Your task to perform on an android device: Clear the shopping cart on costco. Image 0: 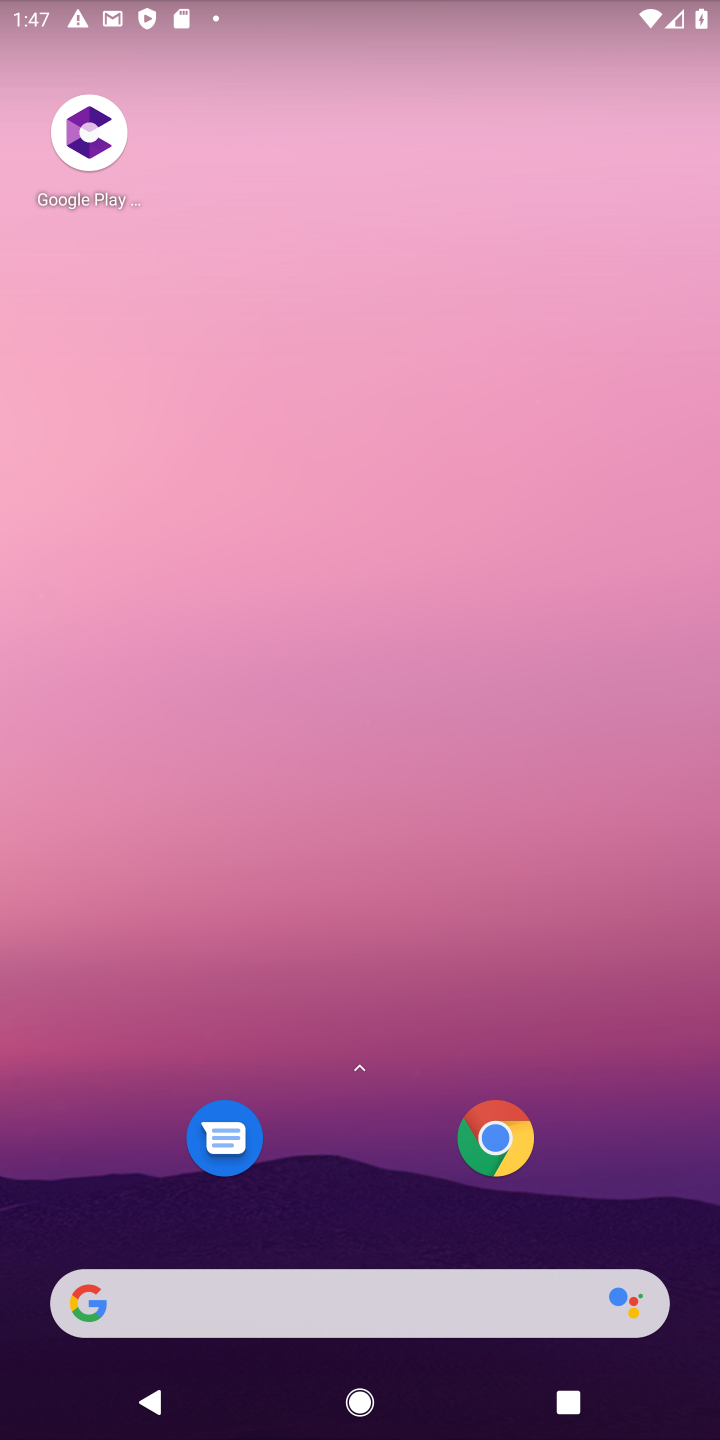
Step 0: drag from (335, 1154) to (301, 136)
Your task to perform on an android device: Clear the shopping cart on costco. Image 1: 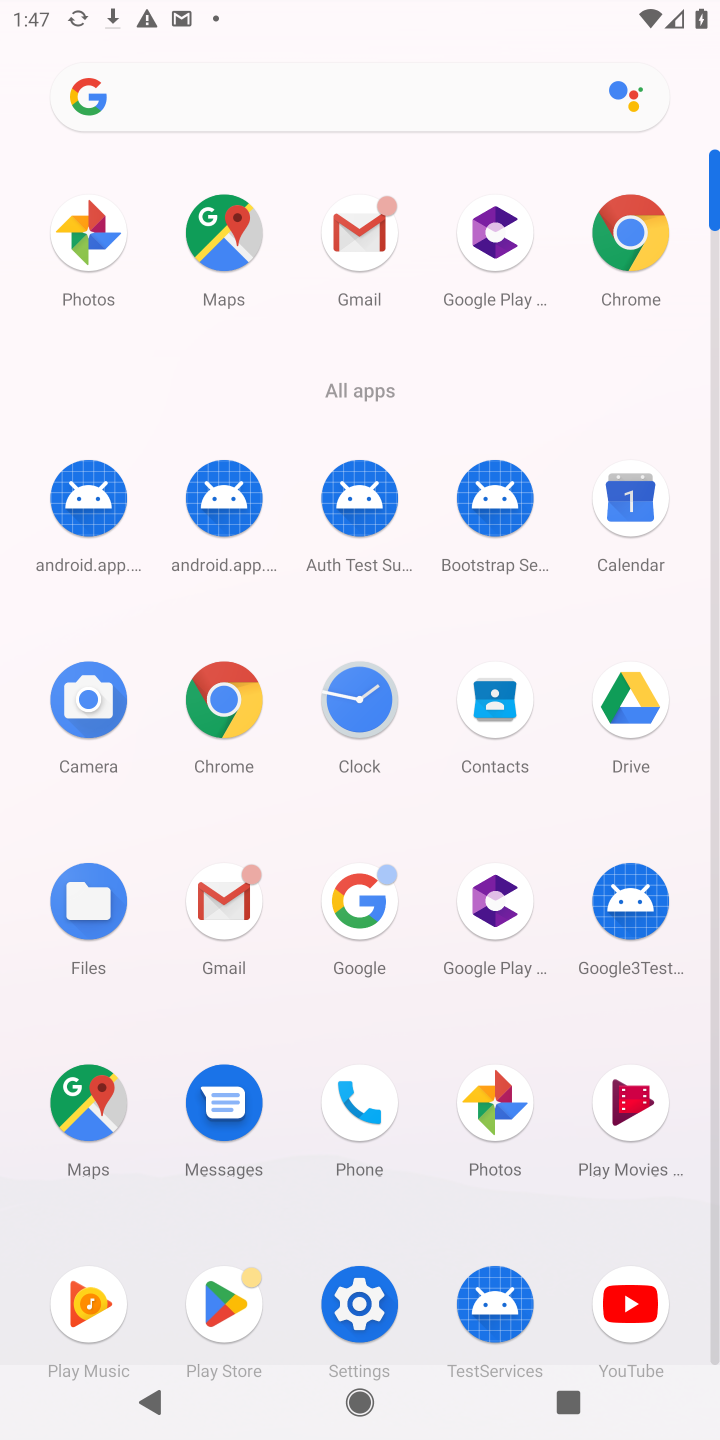
Step 1: click (231, 696)
Your task to perform on an android device: Clear the shopping cart on costco. Image 2: 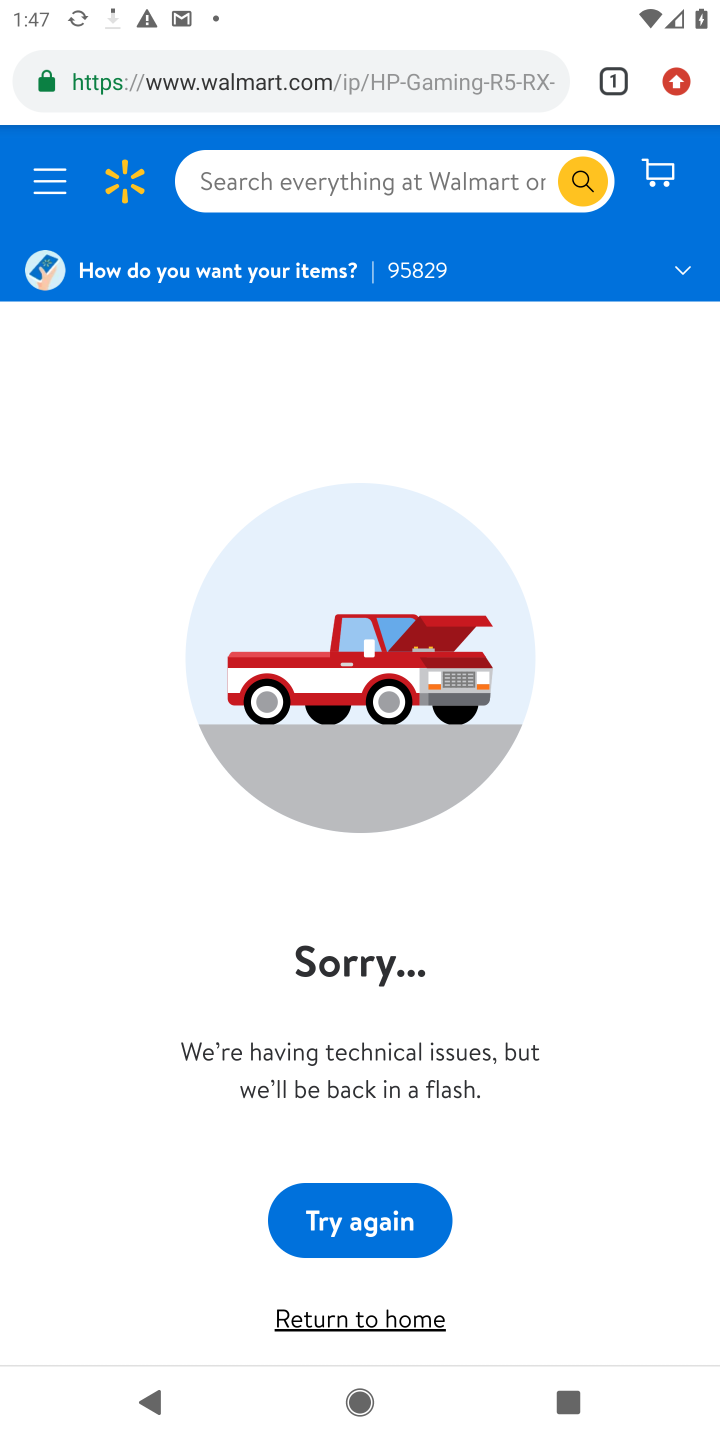
Step 2: click (162, 58)
Your task to perform on an android device: Clear the shopping cart on costco. Image 3: 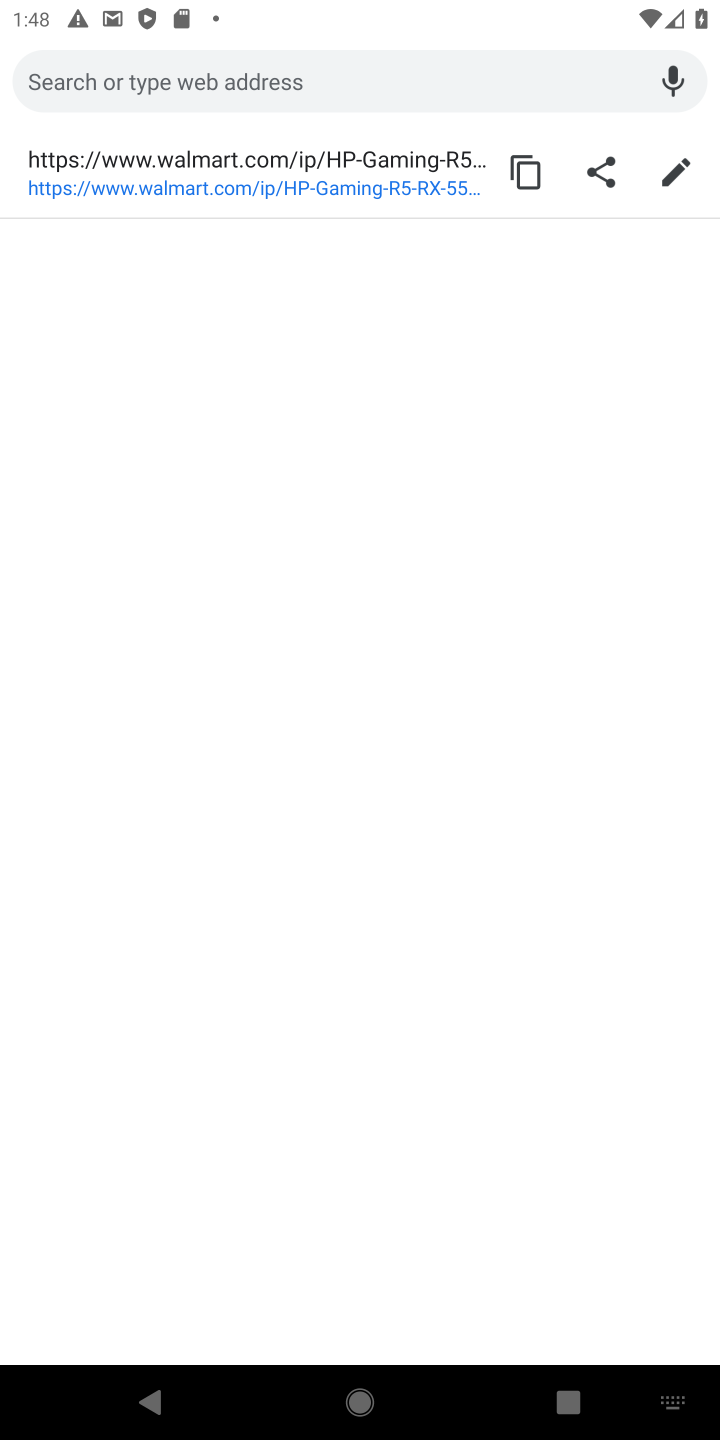
Step 3: type "costco"
Your task to perform on an android device: Clear the shopping cart on costco. Image 4: 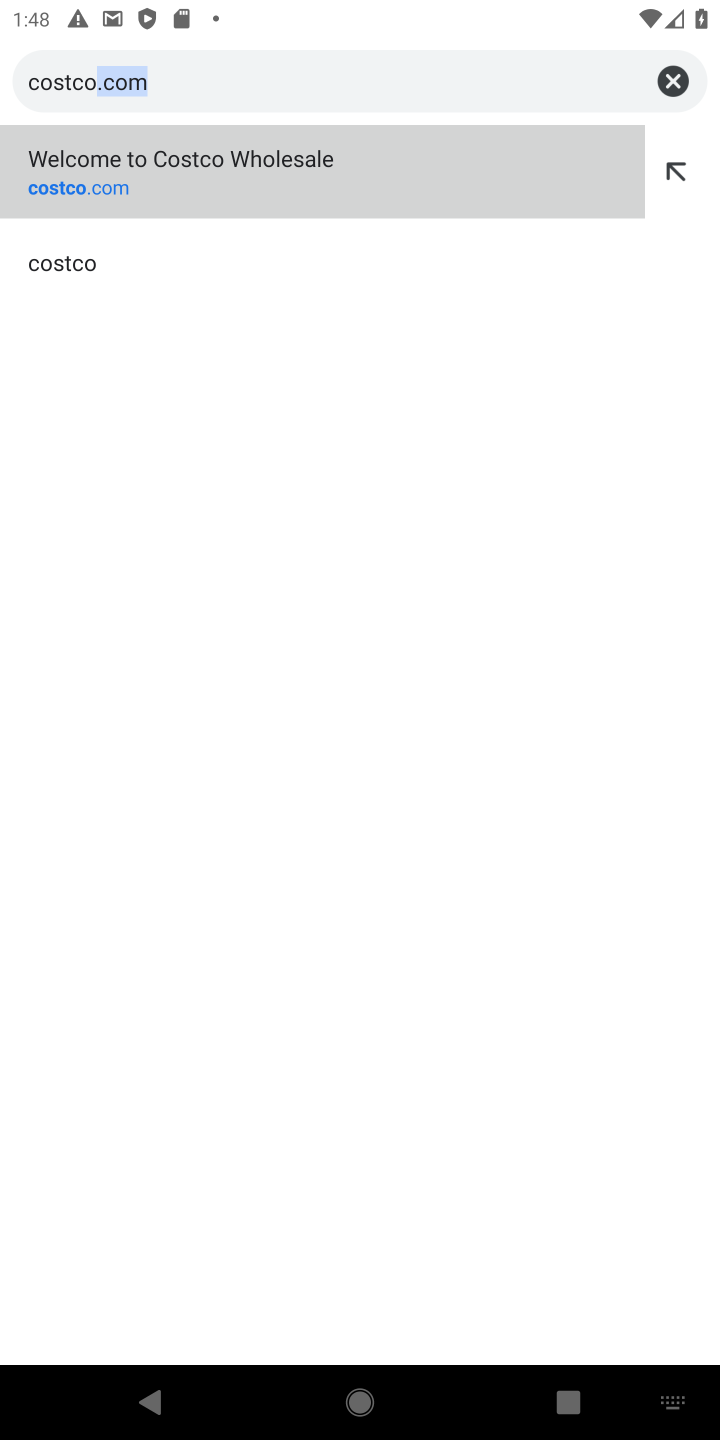
Step 4: click (67, 176)
Your task to perform on an android device: Clear the shopping cart on costco. Image 5: 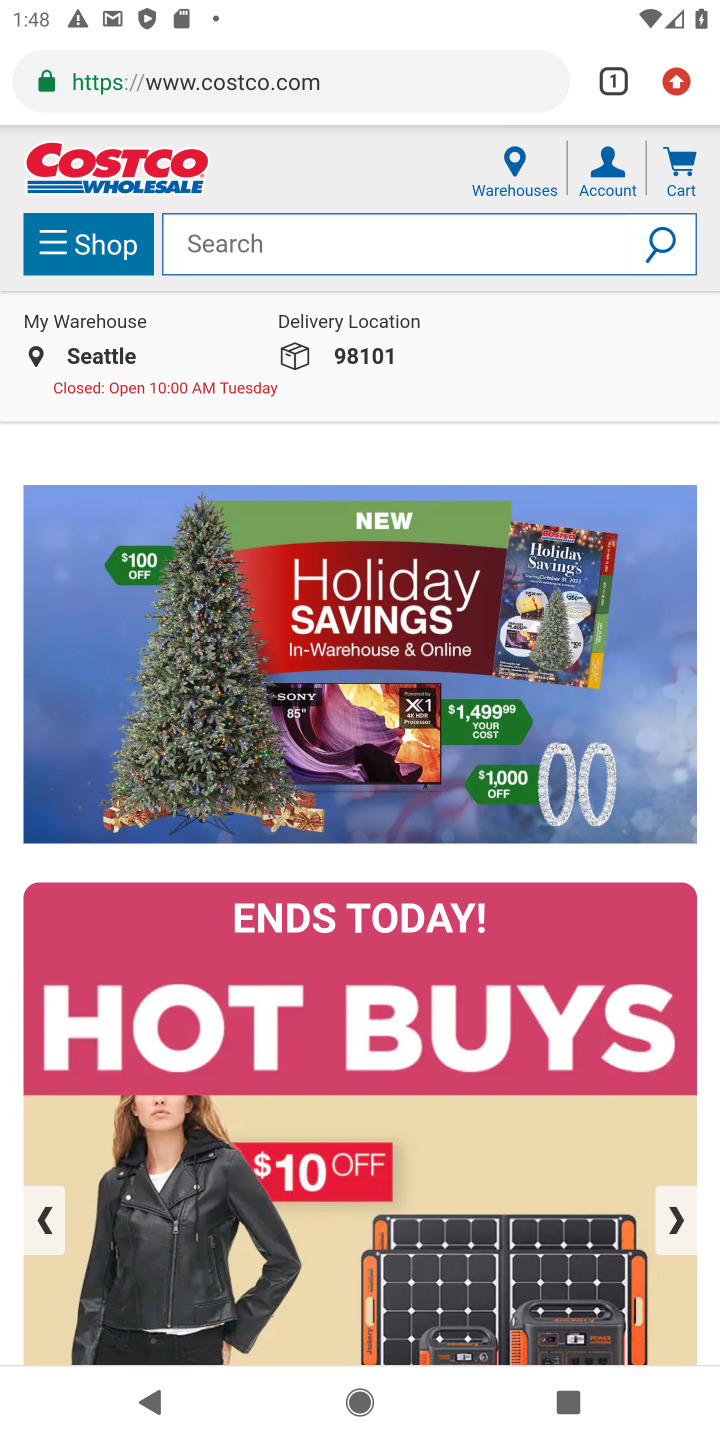
Step 5: click (680, 158)
Your task to perform on an android device: Clear the shopping cart on costco. Image 6: 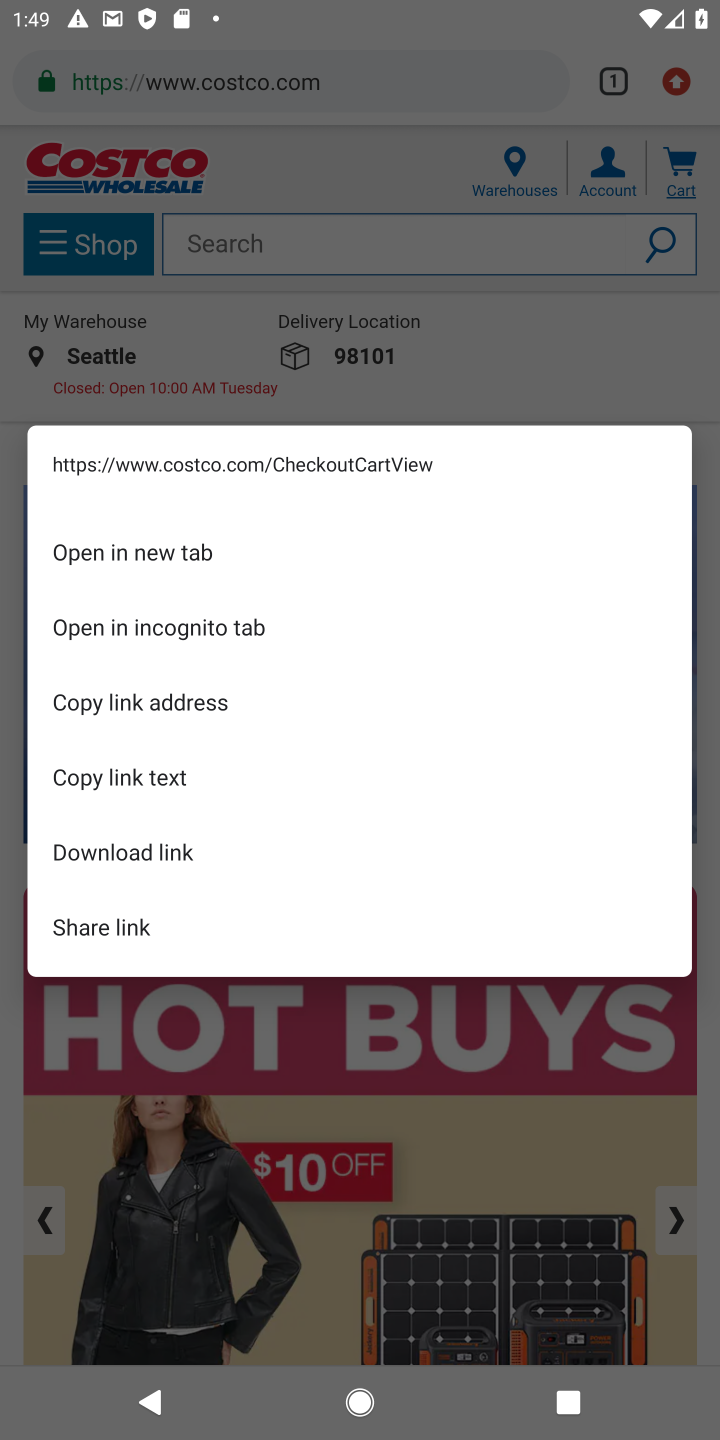
Step 6: click (653, 341)
Your task to perform on an android device: Clear the shopping cart on costco. Image 7: 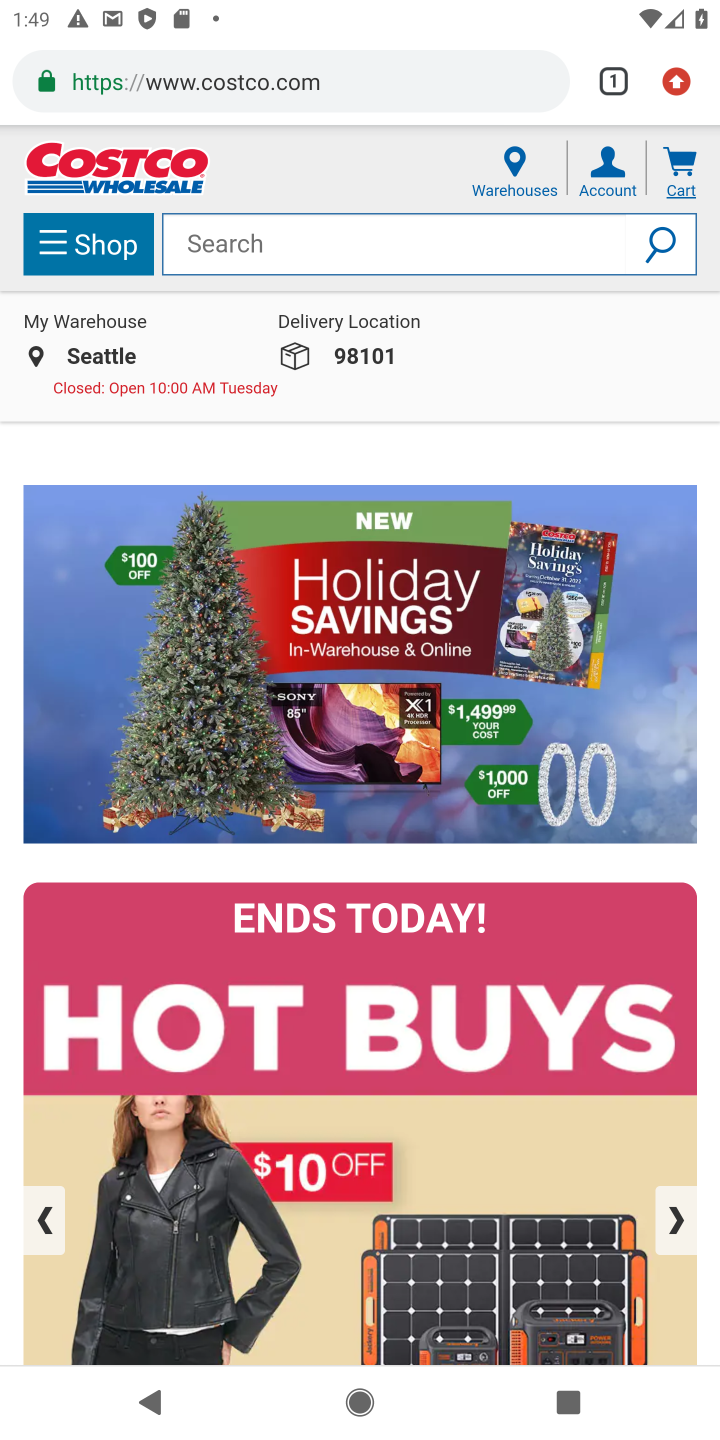
Step 7: click (681, 169)
Your task to perform on an android device: Clear the shopping cart on costco. Image 8: 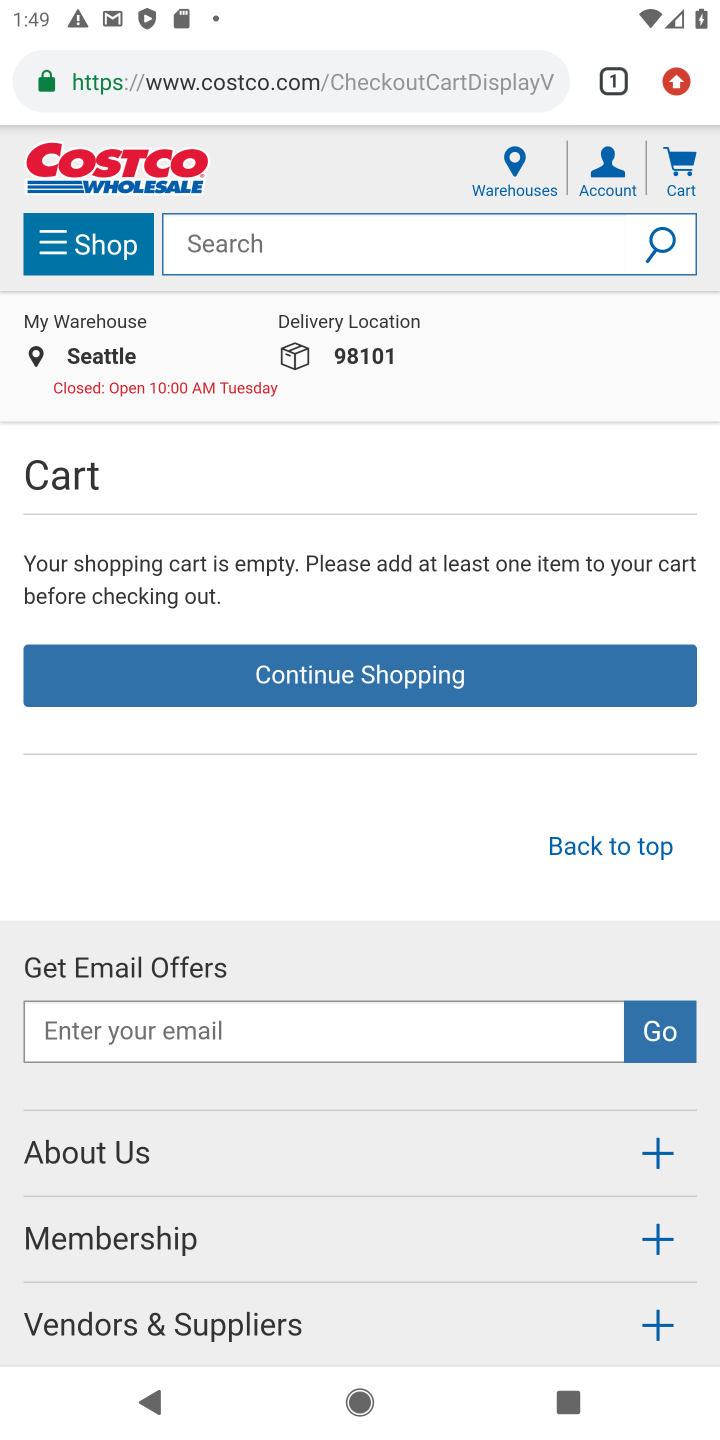
Step 8: task complete